Your task to perform on an android device: see tabs open on other devices in the chrome app Image 0: 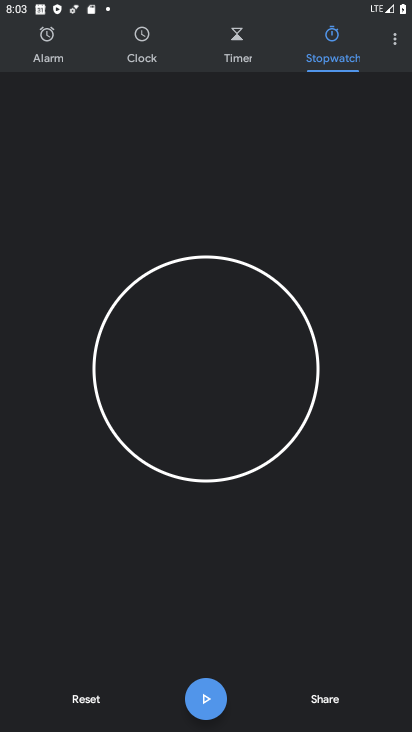
Step 0: press home button
Your task to perform on an android device: see tabs open on other devices in the chrome app Image 1: 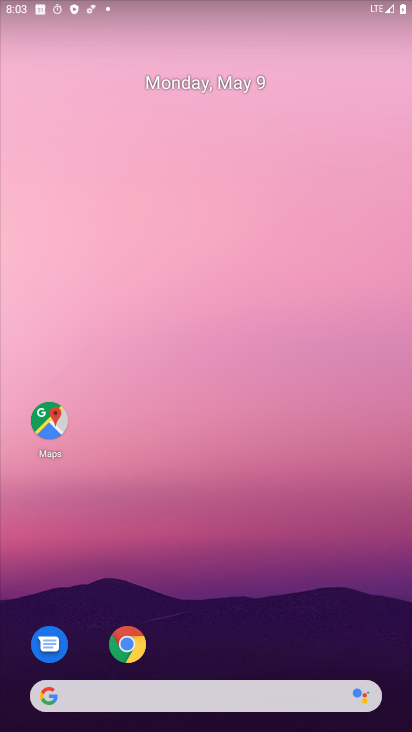
Step 1: click (133, 647)
Your task to perform on an android device: see tabs open on other devices in the chrome app Image 2: 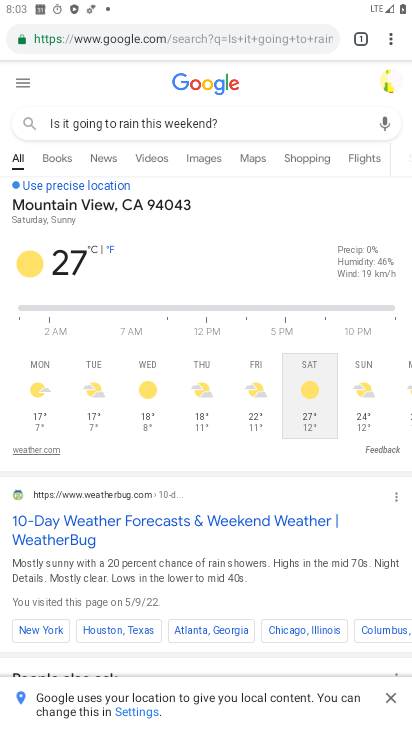
Step 2: click (367, 32)
Your task to perform on an android device: see tabs open on other devices in the chrome app Image 3: 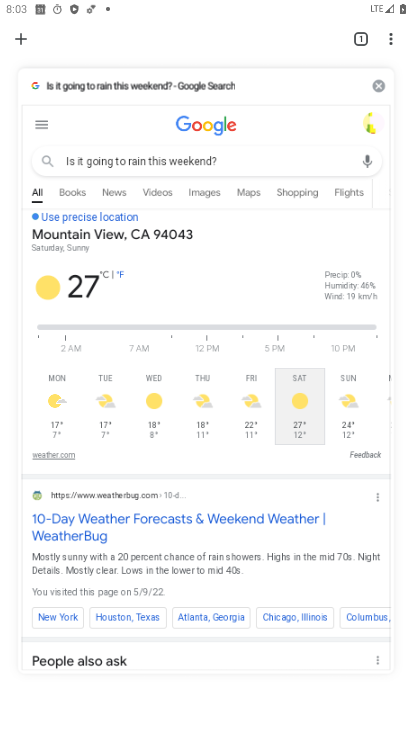
Step 3: task complete